Your task to perform on an android device: turn off translation in the chrome app Image 0: 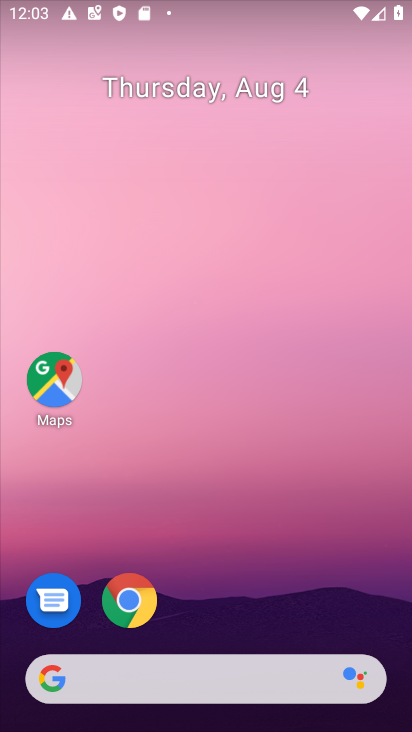
Step 0: press home button
Your task to perform on an android device: turn off translation in the chrome app Image 1: 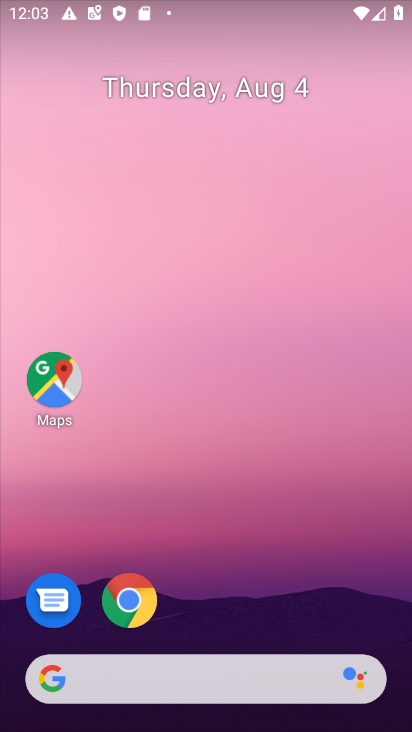
Step 1: click (127, 598)
Your task to perform on an android device: turn off translation in the chrome app Image 2: 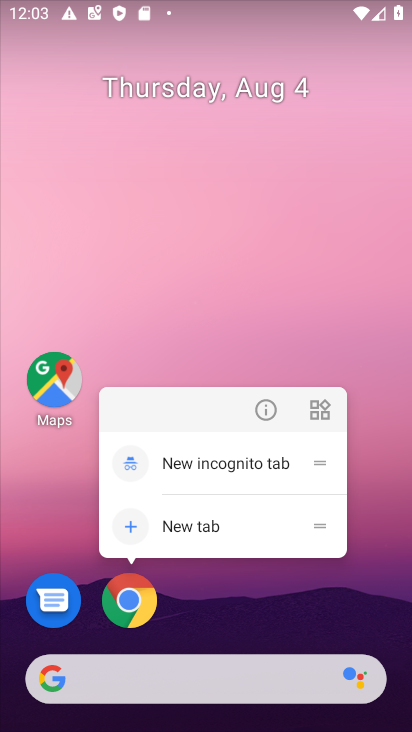
Step 2: click (127, 597)
Your task to perform on an android device: turn off translation in the chrome app Image 3: 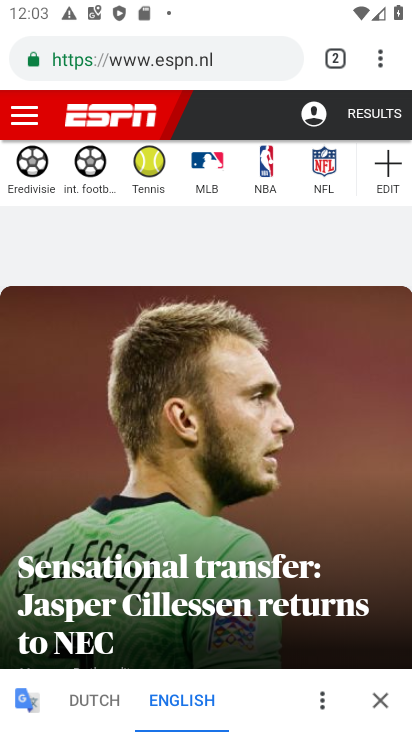
Step 3: drag from (382, 49) to (199, 631)
Your task to perform on an android device: turn off translation in the chrome app Image 4: 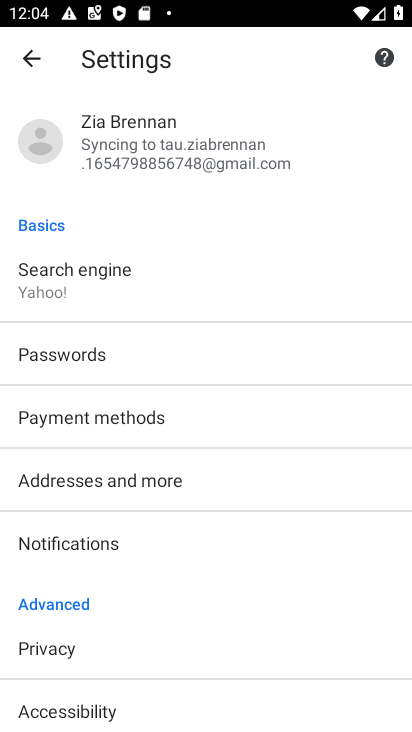
Step 4: drag from (188, 572) to (267, 251)
Your task to perform on an android device: turn off translation in the chrome app Image 5: 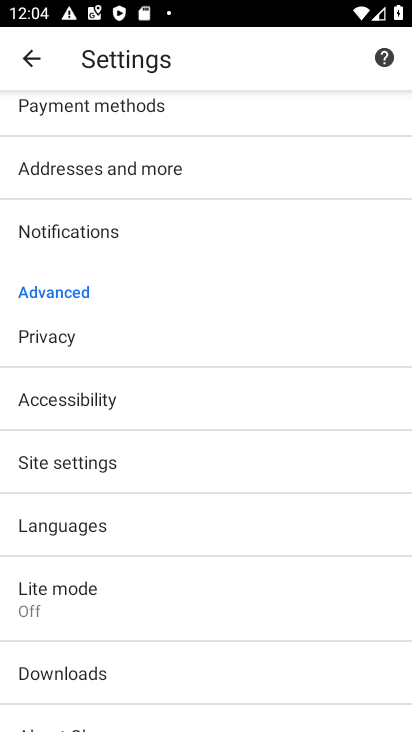
Step 5: click (103, 528)
Your task to perform on an android device: turn off translation in the chrome app Image 6: 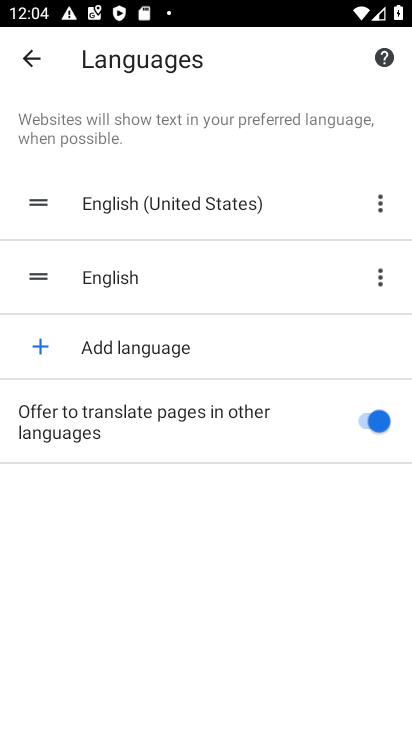
Step 6: click (368, 419)
Your task to perform on an android device: turn off translation in the chrome app Image 7: 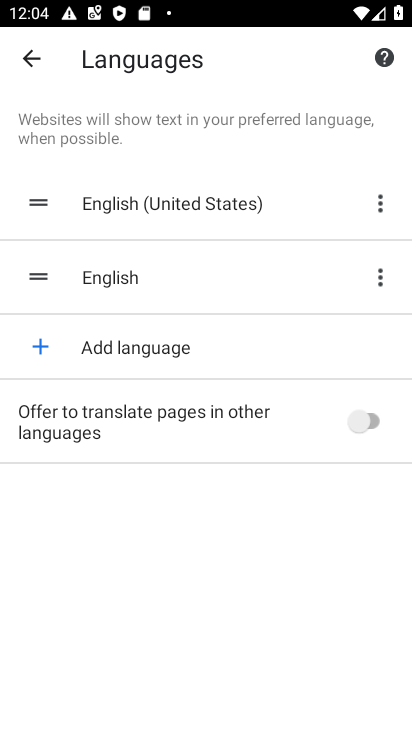
Step 7: task complete